Your task to perform on an android device: turn pop-ups on in chrome Image 0: 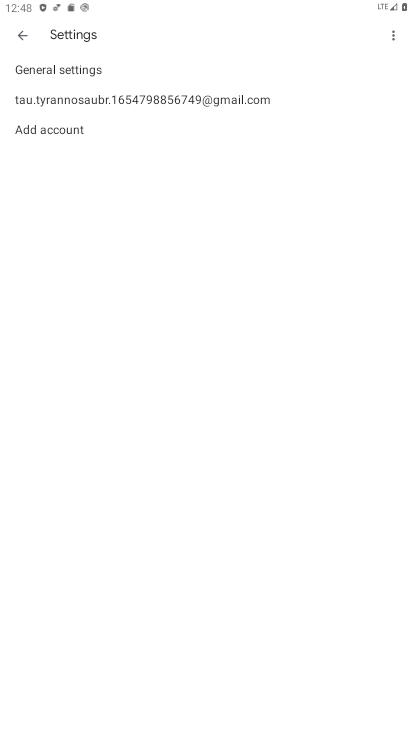
Step 0: press home button
Your task to perform on an android device: turn pop-ups on in chrome Image 1: 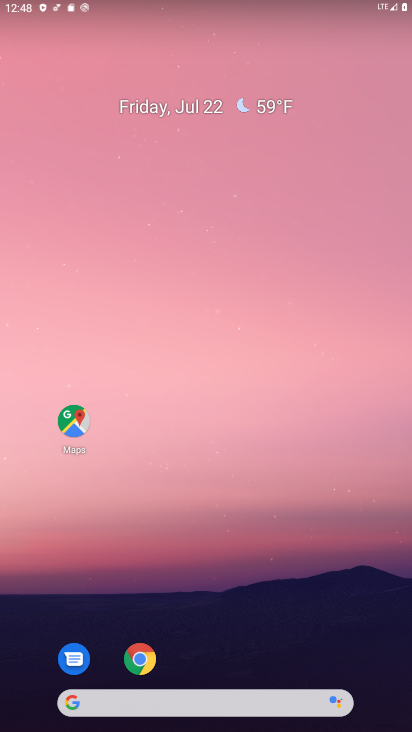
Step 1: click (145, 674)
Your task to perform on an android device: turn pop-ups on in chrome Image 2: 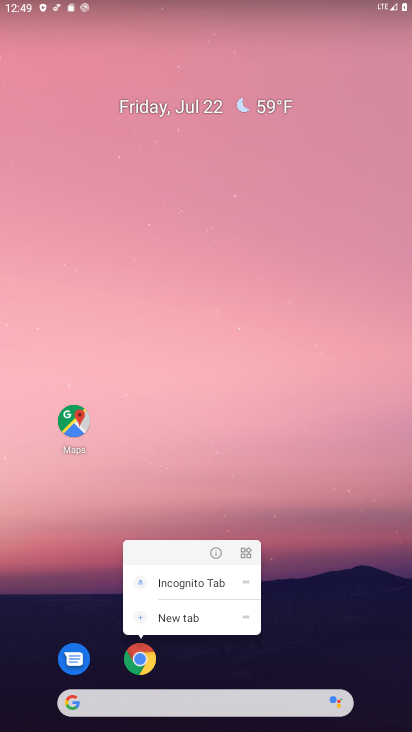
Step 2: click (145, 674)
Your task to perform on an android device: turn pop-ups on in chrome Image 3: 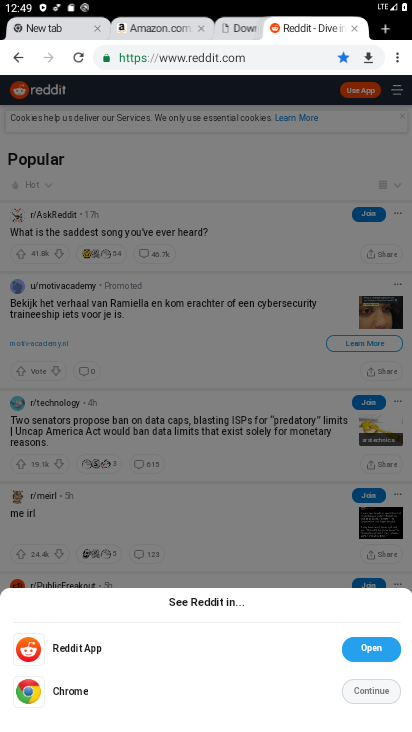
Step 3: click (391, 54)
Your task to perform on an android device: turn pop-ups on in chrome Image 4: 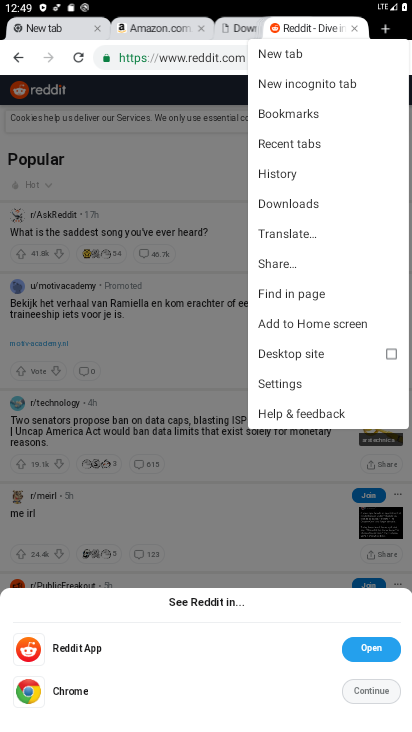
Step 4: click (321, 379)
Your task to perform on an android device: turn pop-ups on in chrome Image 5: 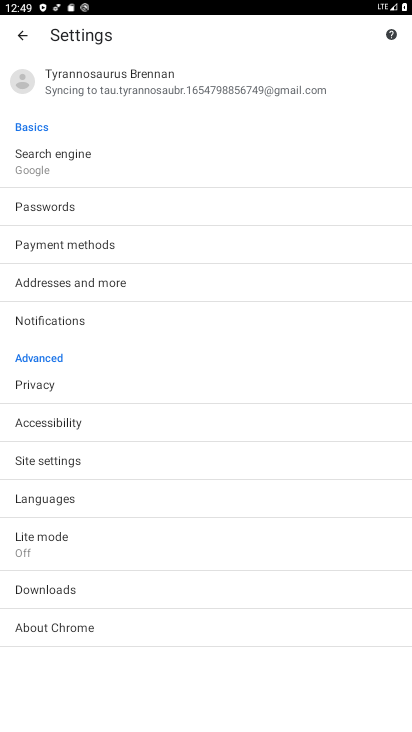
Step 5: click (92, 462)
Your task to perform on an android device: turn pop-ups on in chrome Image 6: 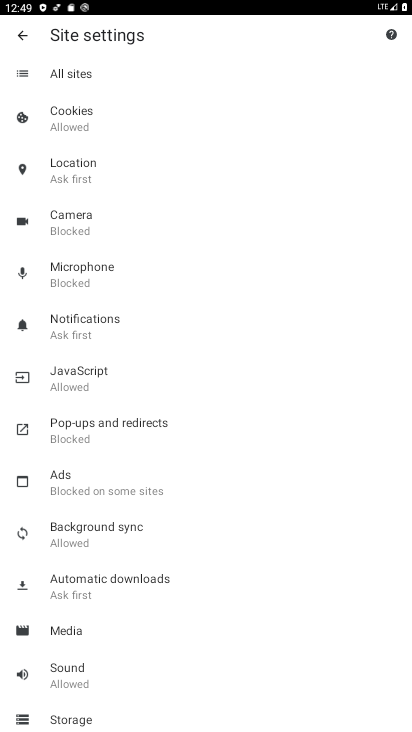
Step 6: click (134, 408)
Your task to perform on an android device: turn pop-ups on in chrome Image 7: 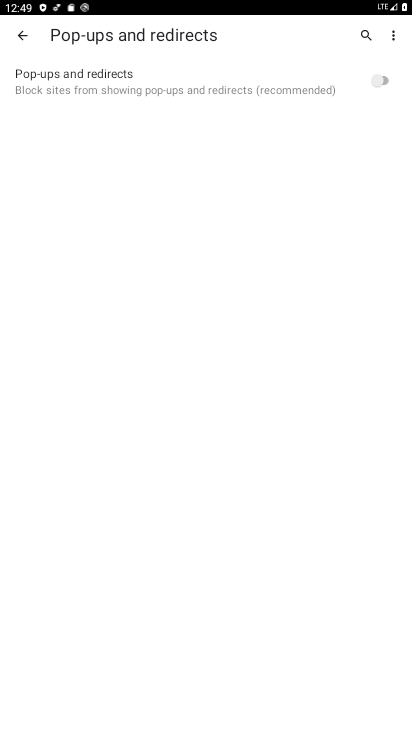
Step 7: click (389, 83)
Your task to perform on an android device: turn pop-ups on in chrome Image 8: 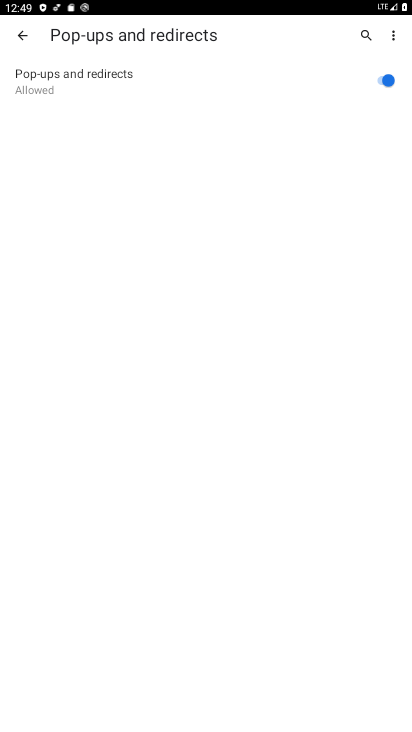
Step 8: task complete